Your task to perform on an android device: turn on translation in the chrome app Image 0: 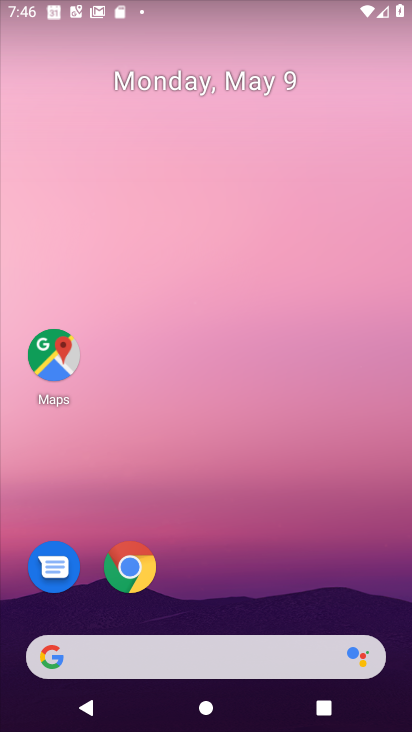
Step 0: drag from (273, 483) to (302, 157)
Your task to perform on an android device: turn on translation in the chrome app Image 1: 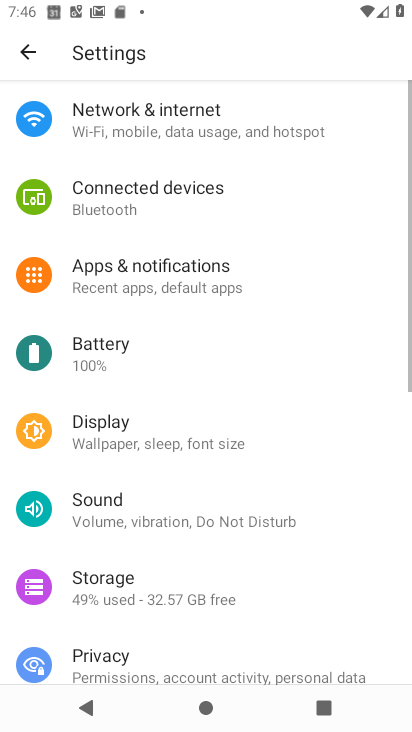
Step 1: drag from (237, 651) to (275, 259)
Your task to perform on an android device: turn on translation in the chrome app Image 2: 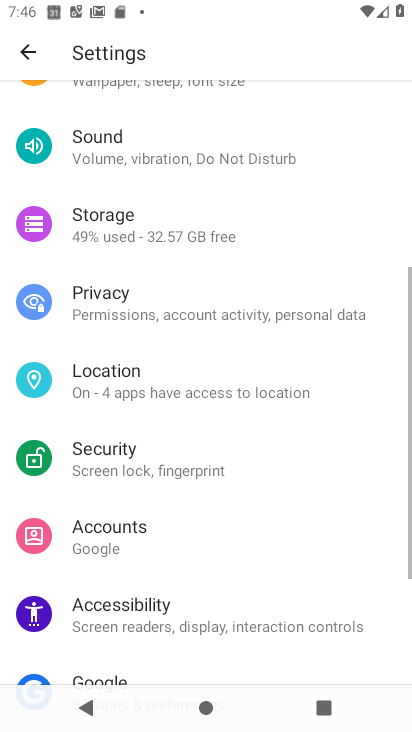
Step 2: drag from (263, 177) to (250, 657)
Your task to perform on an android device: turn on translation in the chrome app Image 3: 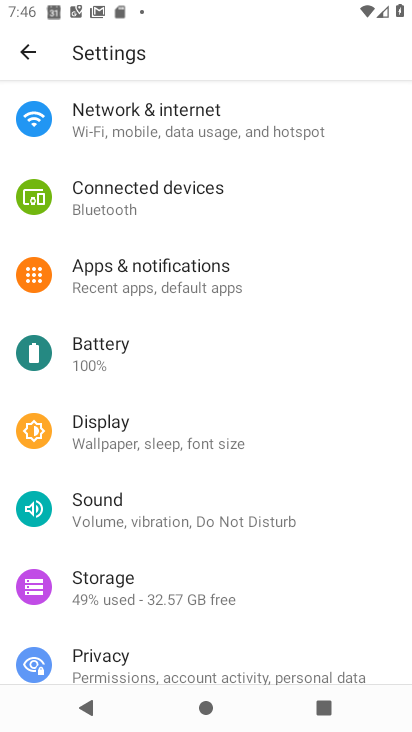
Step 3: drag from (204, 620) to (292, 242)
Your task to perform on an android device: turn on translation in the chrome app Image 4: 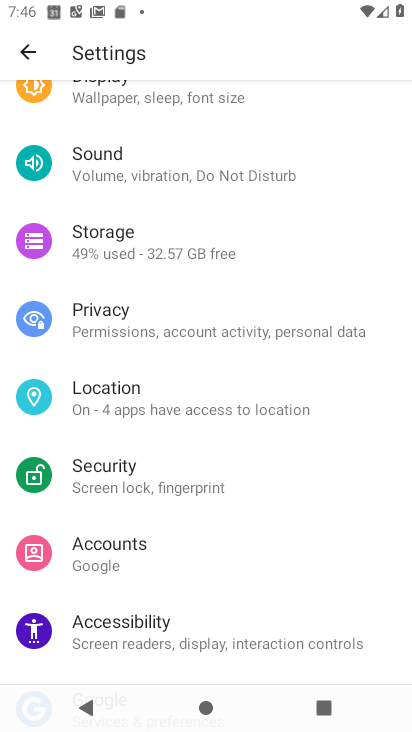
Step 4: drag from (219, 198) to (270, 716)
Your task to perform on an android device: turn on translation in the chrome app Image 5: 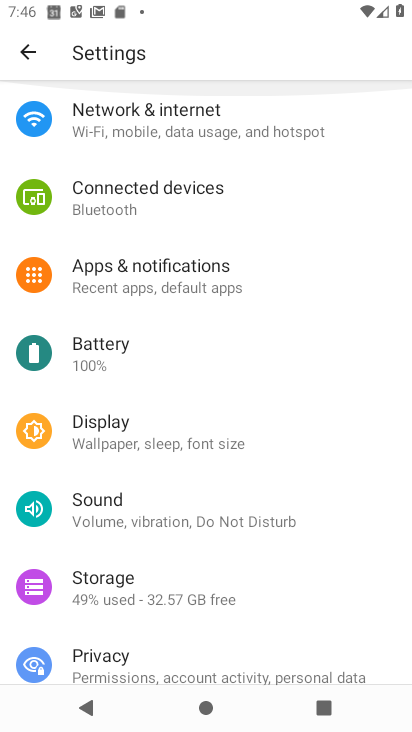
Step 5: press home button
Your task to perform on an android device: turn on translation in the chrome app Image 6: 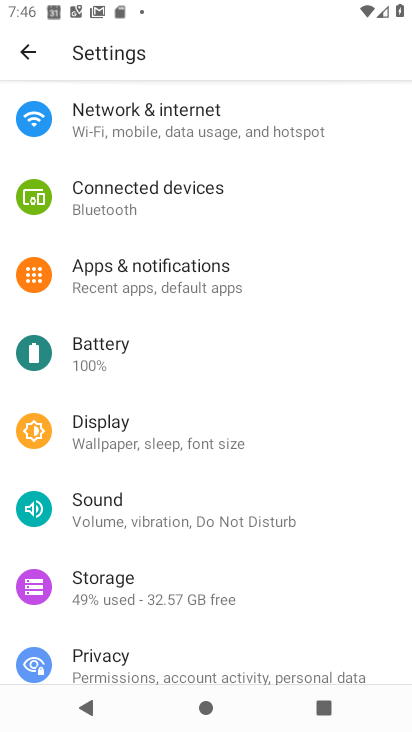
Step 6: drag from (270, 716) to (411, 416)
Your task to perform on an android device: turn on translation in the chrome app Image 7: 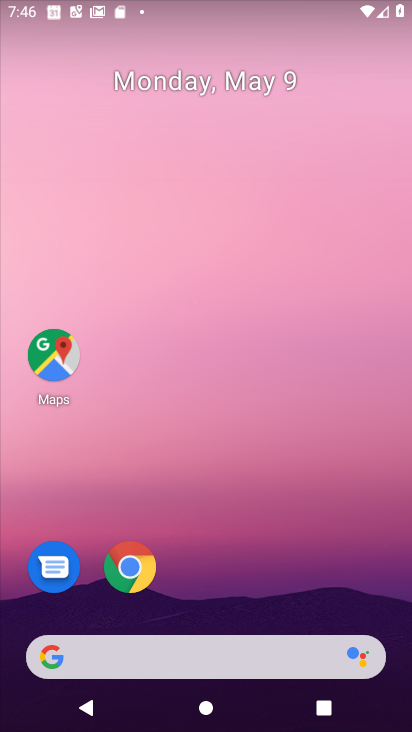
Step 7: drag from (210, 610) to (229, 201)
Your task to perform on an android device: turn on translation in the chrome app Image 8: 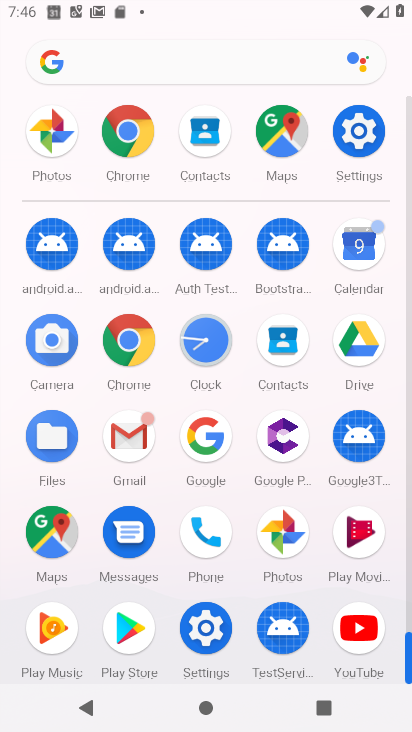
Step 8: click (127, 343)
Your task to perform on an android device: turn on translation in the chrome app Image 9: 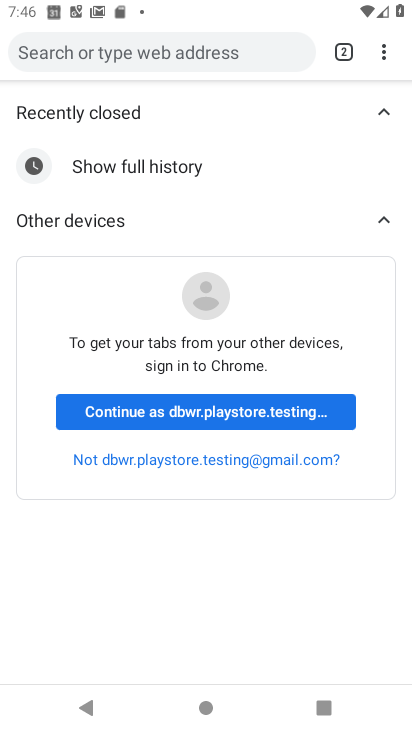
Step 9: click (388, 54)
Your task to perform on an android device: turn on translation in the chrome app Image 10: 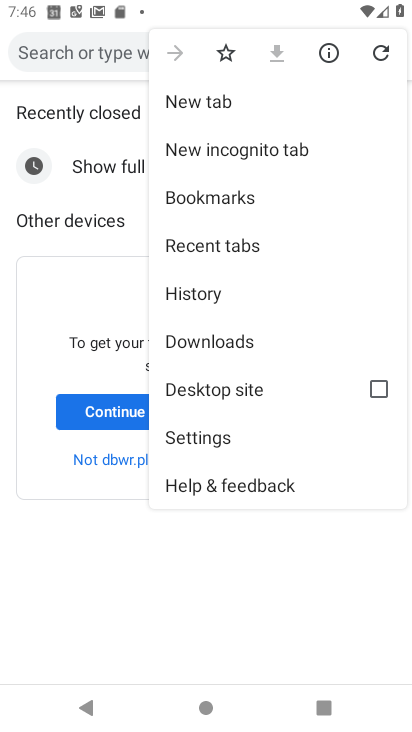
Step 10: click (220, 426)
Your task to perform on an android device: turn on translation in the chrome app Image 11: 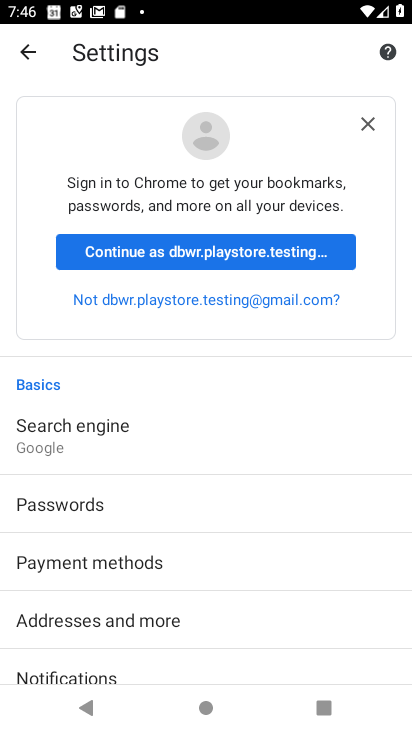
Step 11: drag from (154, 612) to (199, 223)
Your task to perform on an android device: turn on translation in the chrome app Image 12: 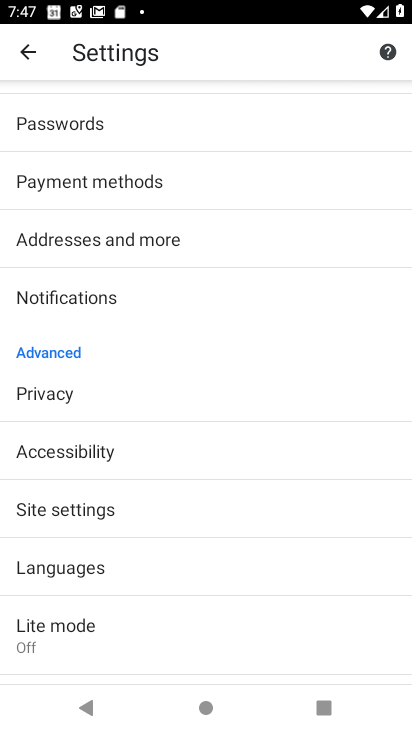
Step 12: click (85, 557)
Your task to perform on an android device: turn on translation in the chrome app Image 13: 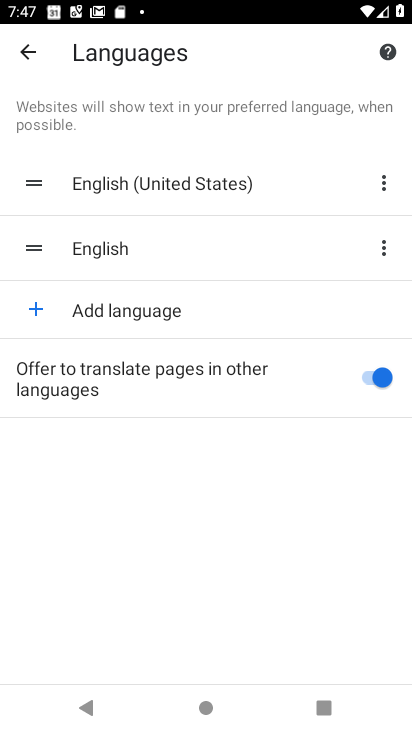
Step 13: task complete